Your task to perform on an android device: Open sound settings Image 0: 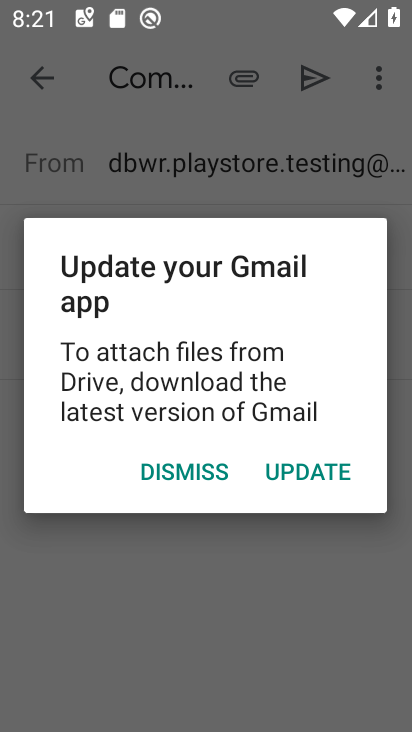
Step 0: press home button
Your task to perform on an android device: Open sound settings Image 1: 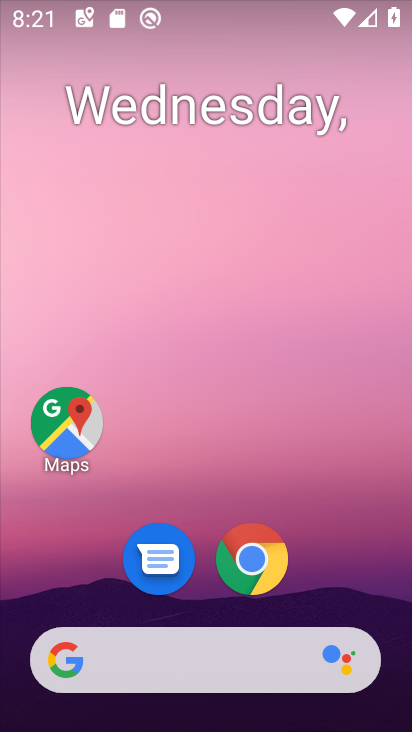
Step 1: drag from (393, 576) to (357, 118)
Your task to perform on an android device: Open sound settings Image 2: 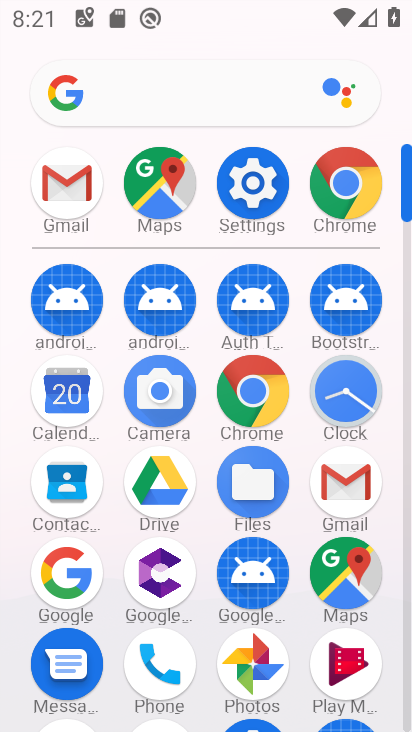
Step 2: click (250, 177)
Your task to perform on an android device: Open sound settings Image 3: 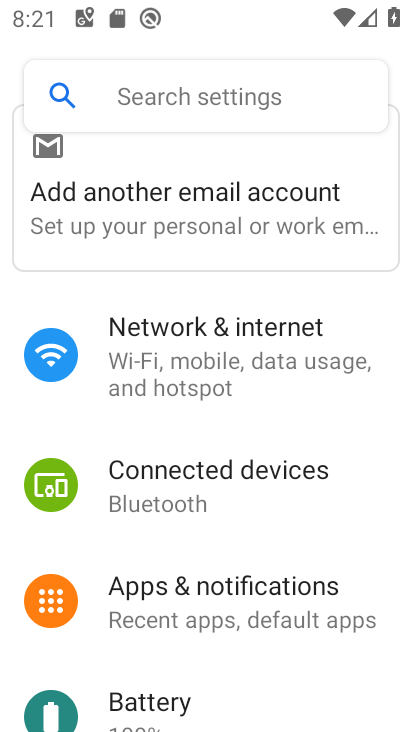
Step 3: drag from (325, 678) to (311, 238)
Your task to perform on an android device: Open sound settings Image 4: 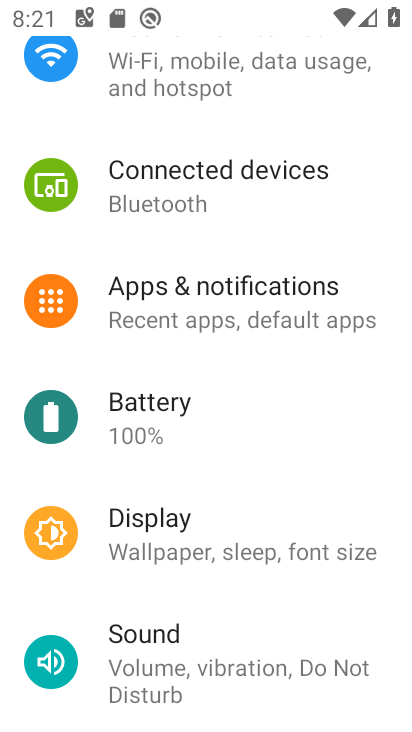
Step 4: click (187, 646)
Your task to perform on an android device: Open sound settings Image 5: 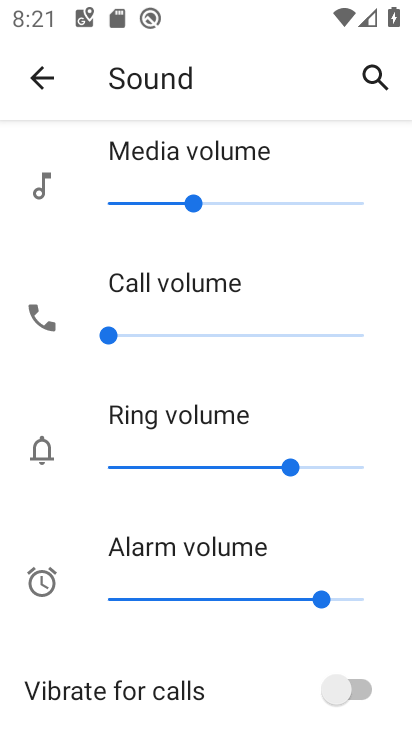
Step 5: task complete